Your task to perform on an android device: open app "McDonald's" (install if not already installed) and enter user name: "copes@yahoo.com" and password: "Rhenish" Image 0: 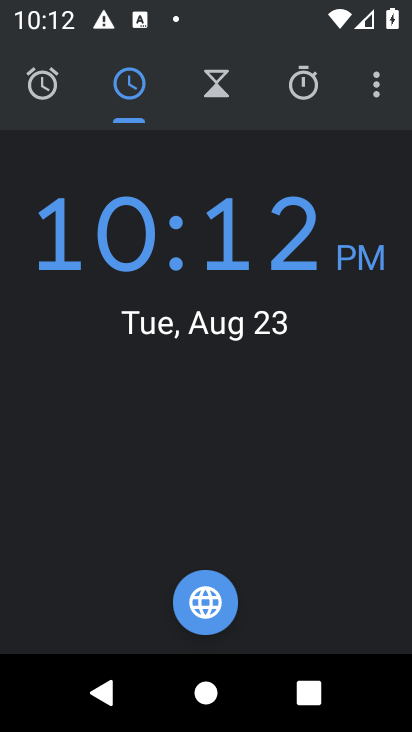
Step 0: press home button
Your task to perform on an android device: open app "McDonald's" (install if not already installed) and enter user name: "copes@yahoo.com" and password: "Rhenish" Image 1: 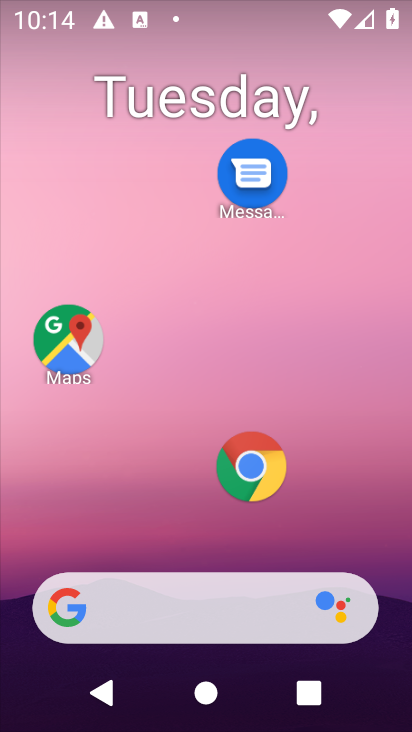
Step 1: drag from (167, 544) to (216, 41)
Your task to perform on an android device: open app "McDonald's" (install if not already installed) and enter user name: "copes@yahoo.com" and password: "Rhenish" Image 2: 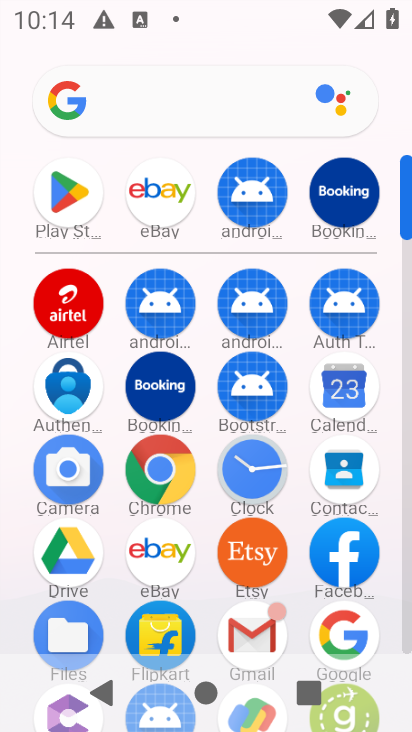
Step 2: click (62, 185)
Your task to perform on an android device: open app "McDonald's" (install if not already installed) and enter user name: "copes@yahoo.com" and password: "Rhenish" Image 3: 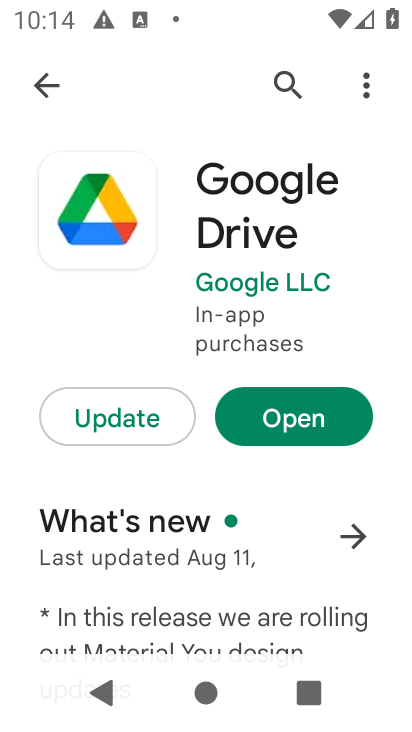
Step 3: click (286, 74)
Your task to perform on an android device: open app "McDonald's" (install if not already installed) and enter user name: "copes@yahoo.com" and password: "Rhenish" Image 4: 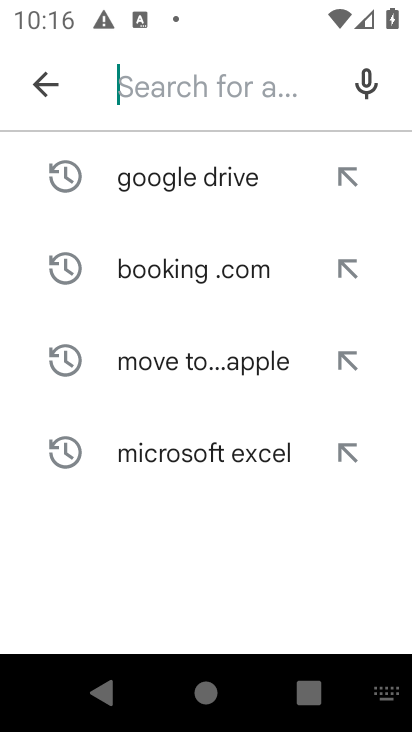
Step 4: click (174, 81)
Your task to perform on an android device: open app "McDonald's" (install if not already installed) and enter user name: "copes@yahoo.com" and password: "Rhenish" Image 5: 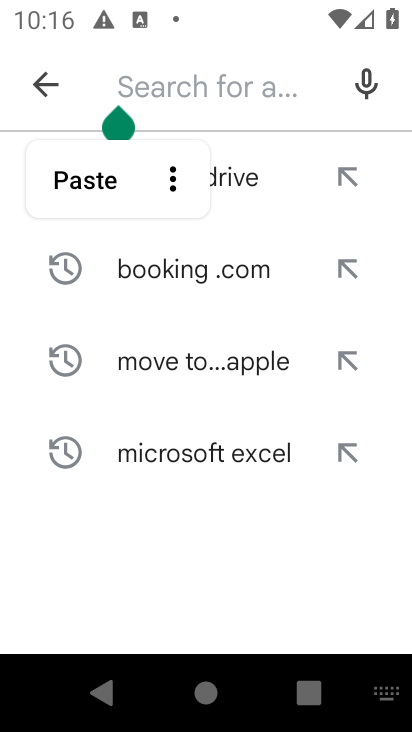
Step 5: type "McDonald'"
Your task to perform on an android device: open app "McDonald's" (install if not already installed) and enter user name: "copes@yahoo.com" and password: "Rhenish" Image 6: 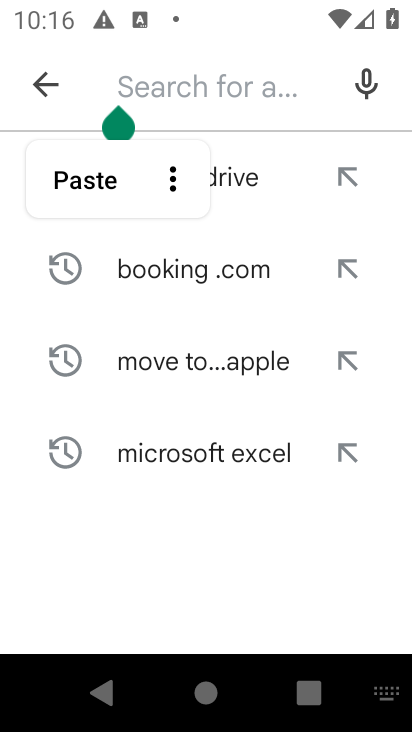
Step 6: click (127, 533)
Your task to perform on an android device: open app "McDonald's" (install if not already installed) and enter user name: "copes@yahoo.com" and password: "Rhenish" Image 7: 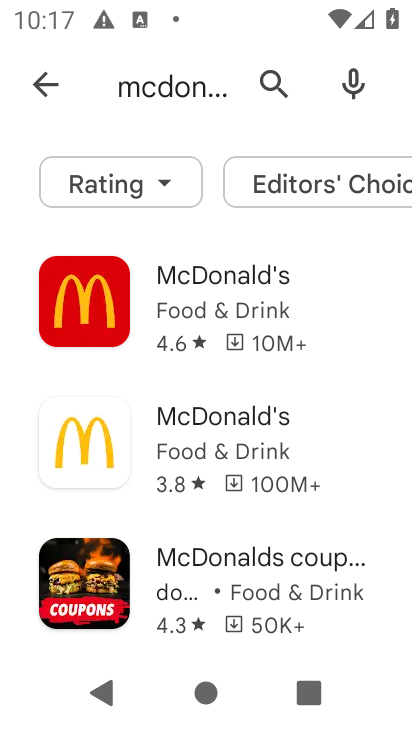
Step 7: click (208, 303)
Your task to perform on an android device: open app "McDonald's" (install if not already installed) and enter user name: "copes@yahoo.com" and password: "Rhenish" Image 8: 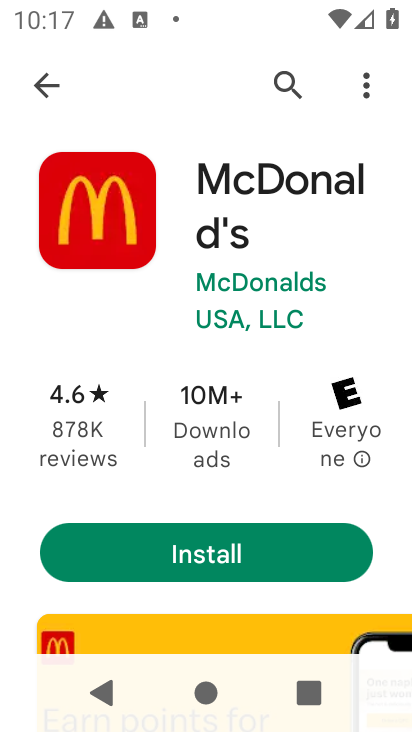
Step 8: click (167, 551)
Your task to perform on an android device: open app "McDonald's" (install if not already installed) and enter user name: "copes@yahoo.com" and password: "Rhenish" Image 9: 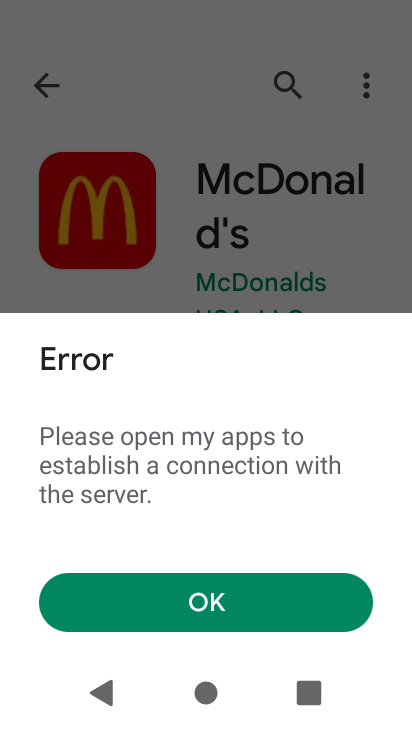
Step 9: click (282, 590)
Your task to perform on an android device: open app "McDonald's" (install if not already installed) and enter user name: "copes@yahoo.com" and password: "Rhenish" Image 10: 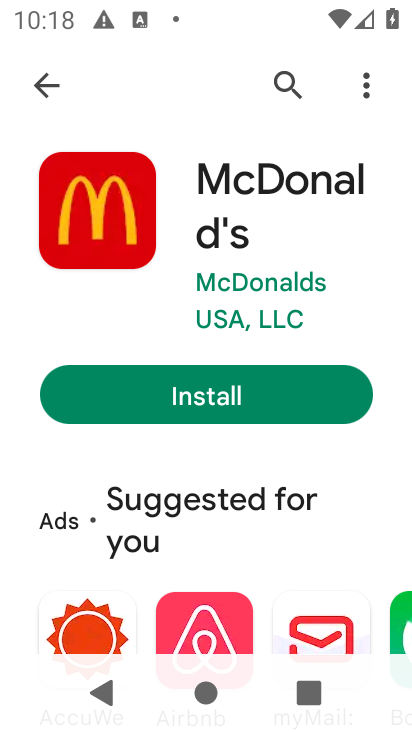
Step 10: click (157, 416)
Your task to perform on an android device: open app "McDonald's" (install if not already installed) and enter user name: "copes@yahoo.com" and password: "Rhenish" Image 11: 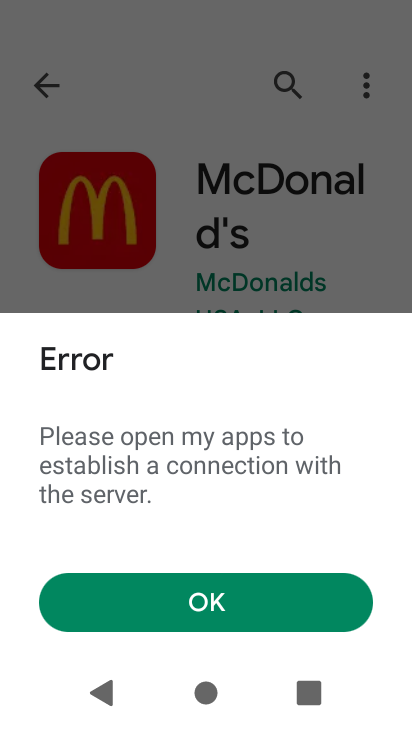
Step 11: task complete